Your task to perform on an android device: change notification settings in the gmail app Image 0: 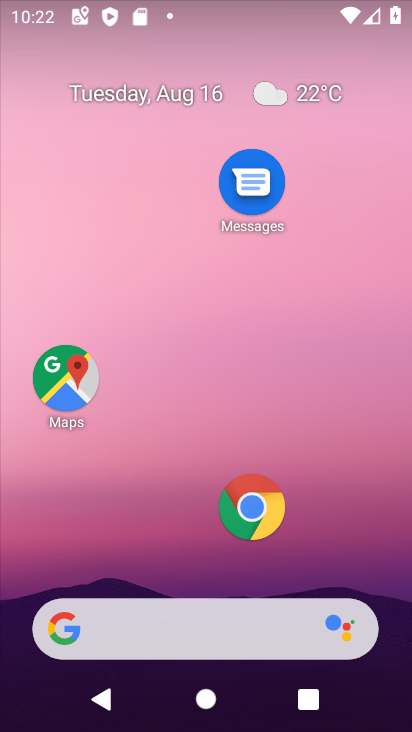
Step 0: drag from (145, 552) to (319, 30)
Your task to perform on an android device: change notification settings in the gmail app Image 1: 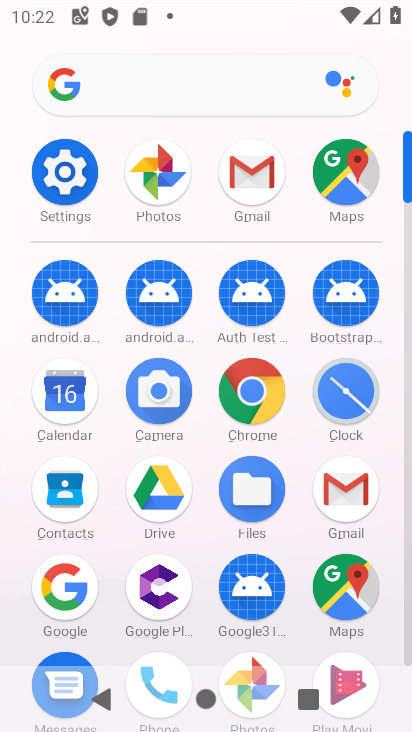
Step 1: click (231, 189)
Your task to perform on an android device: change notification settings in the gmail app Image 2: 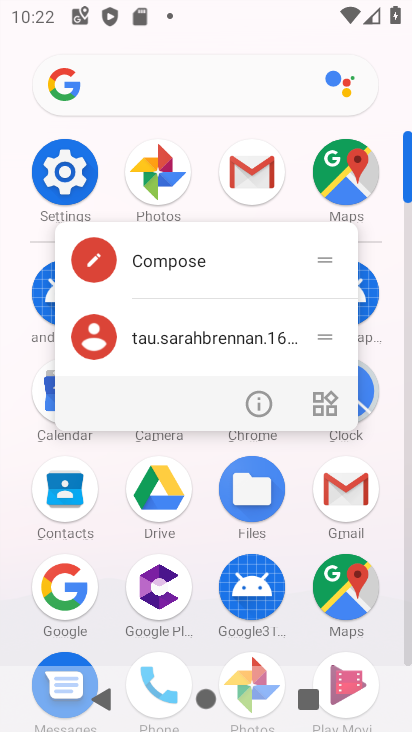
Step 2: click (263, 413)
Your task to perform on an android device: change notification settings in the gmail app Image 3: 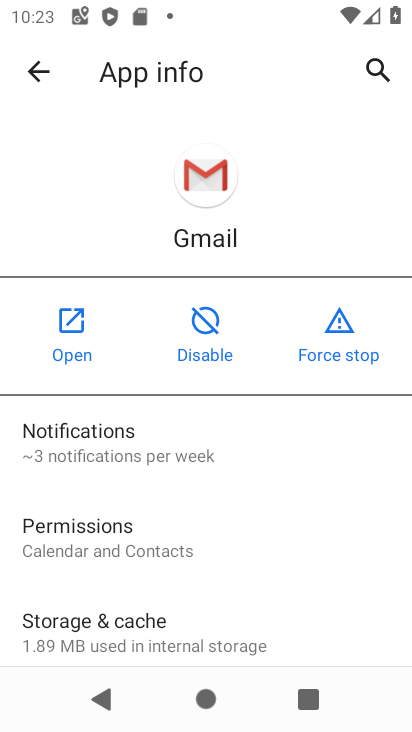
Step 3: click (128, 455)
Your task to perform on an android device: change notification settings in the gmail app Image 4: 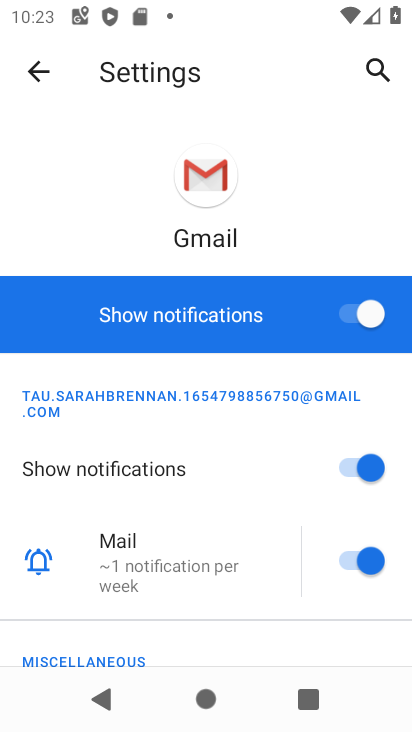
Step 4: click (372, 552)
Your task to perform on an android device: change notification settings in the gmail app Image 5: 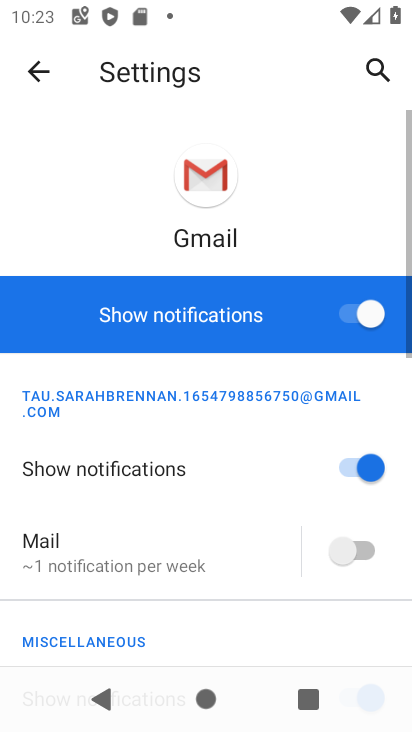
Step 5: task complete